Your task to perform on an android device: empty trash in the gmail app Image 0: 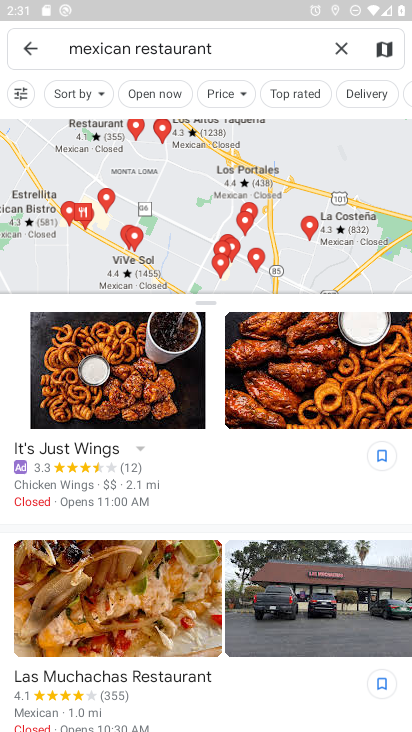
Step 0: press home button
Your task to perform on an android device: empty trash in the gmail app Image 1: 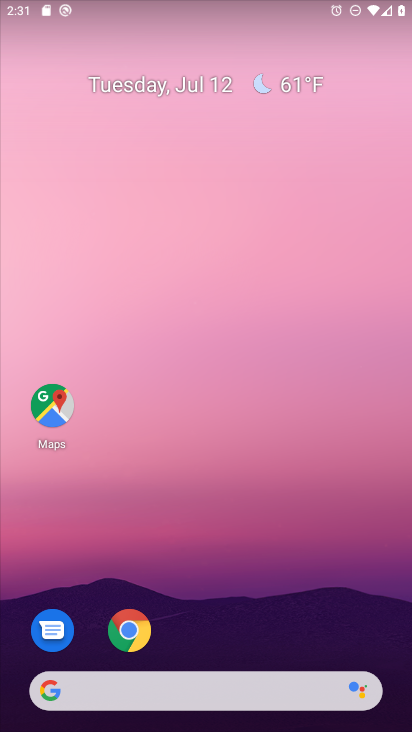
Step 1: drag from (186, 587) to (198, 136)
Your task to perform on an android device: empty trash in the gmail app Image 2: 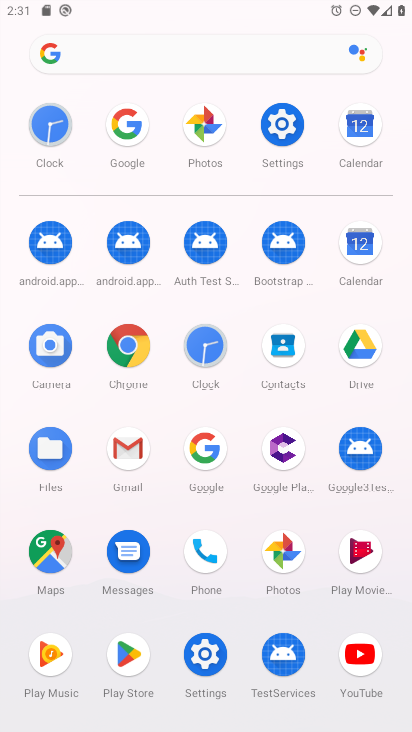
Step 2: click (130, 456)
Your task to perform on an android device: empty trash in the gmail app Image 3: 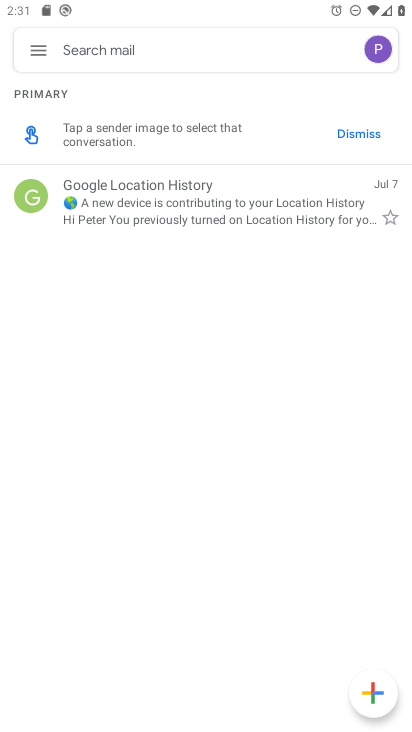
Step 3: click (34, 53)
Your task to perform on an android device: empty trash in the gmail app Image 4: 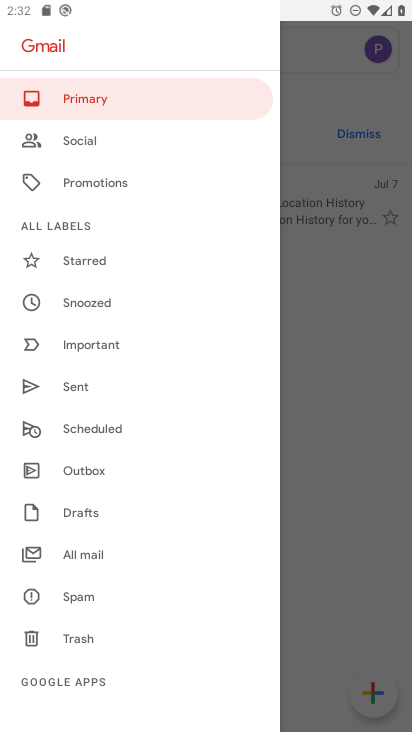
Step 4: click (104, 645)
Your task to perform on an android device: empty trash in the gmail app Image 5: 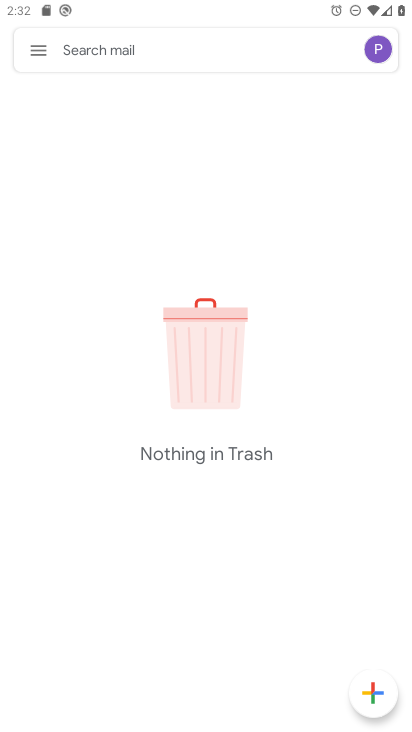
Step 5: task complete